Your task to perform on an android device: Open Maps and search for coffee Image 0: 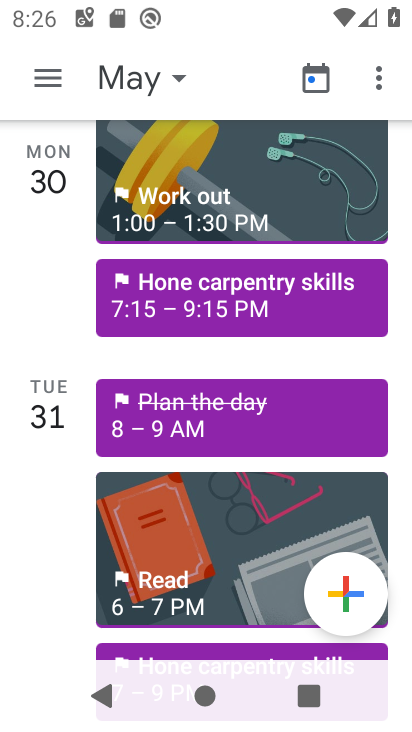
Step 0: press home button
Your task to perform on an android device: Open Maps and search for coffee Image 1: 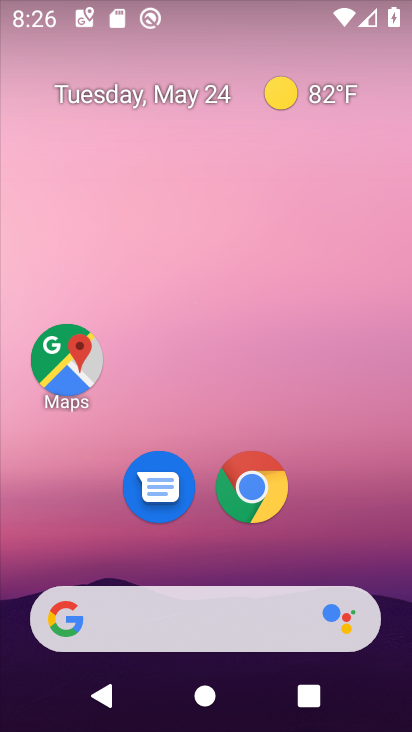
Step 1: drag from (343, 476) to (358, 210)
Your task to perform on an android device: Open Maps and search for coffee Image 2: 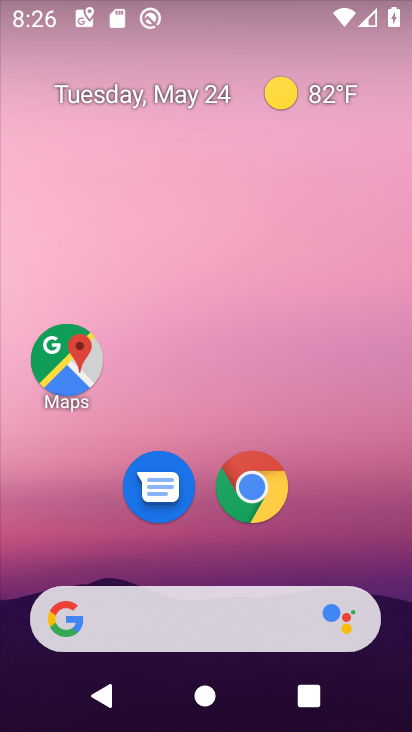
Step 2: drag from (339, 505) to (339, 222)
Your task to perform on an android device: Open Maps and search for coffee Image 3: 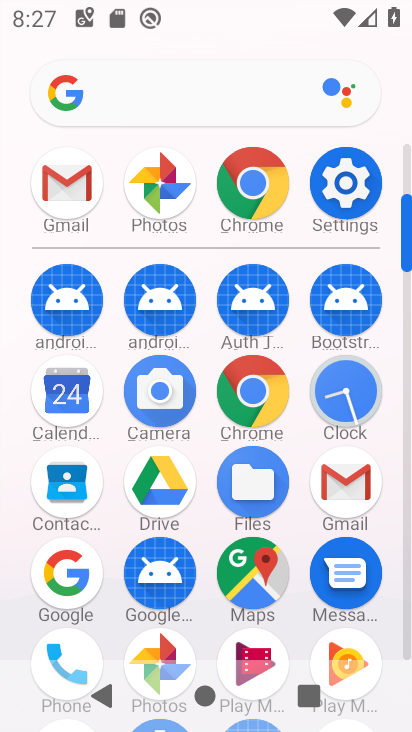
Step 3: click (241, 576)
Your task to perform on an android device: Open Maps and search for coffee Image 4: 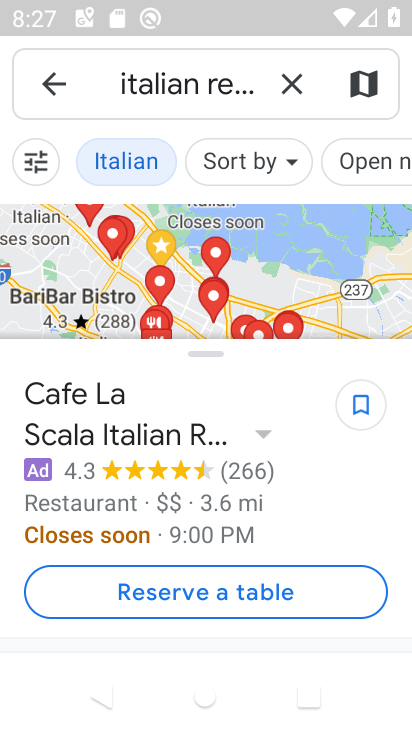
Step 4: click (289, 92)
Your task to perform on an android device: Open Maps and search for coffee Image 5: 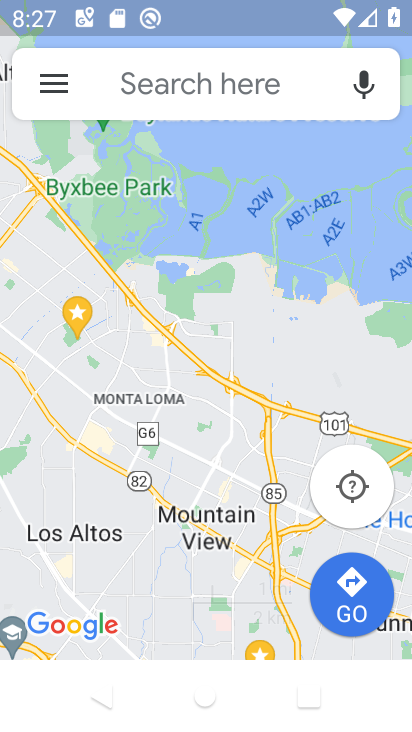
Step 5: click (239, 93)
Your task to perform on an android device: Open Maps and search for coffee Image 6: 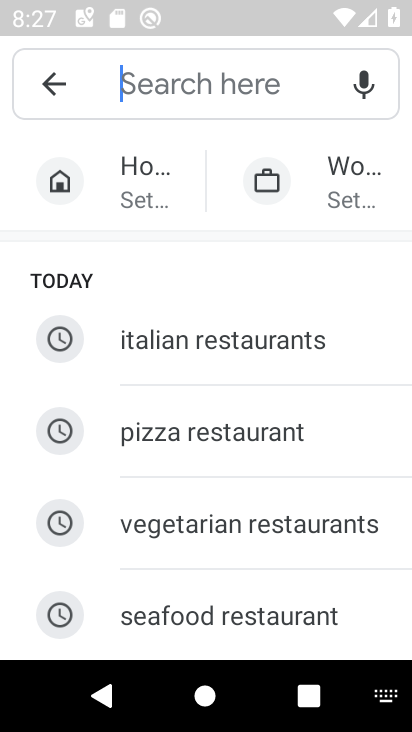
Step 6: type "coffee"
Your task to perform on an android device: Open Maps and search for coffee Image 7: 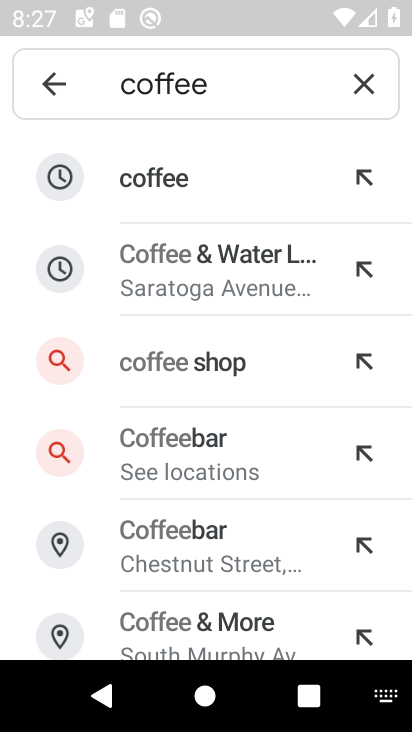
Step 7: click (153, 183)
Your task to perform on an android device: Open Maps and search for coffee Image 8: 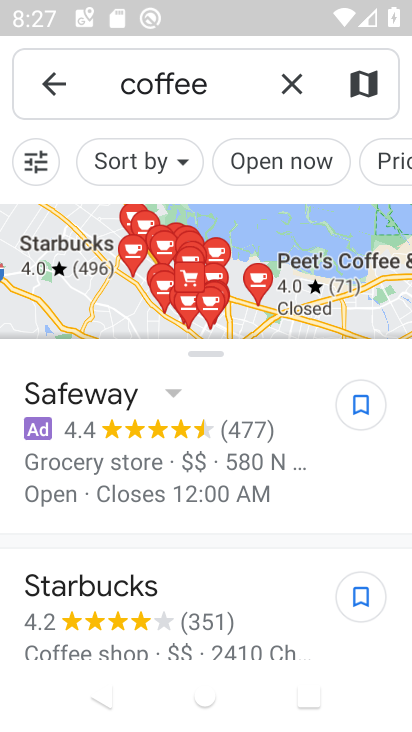
Step 8: task complete